Your task to perform on an android device: uninstall "WhatsApp Messenger" Image 0: 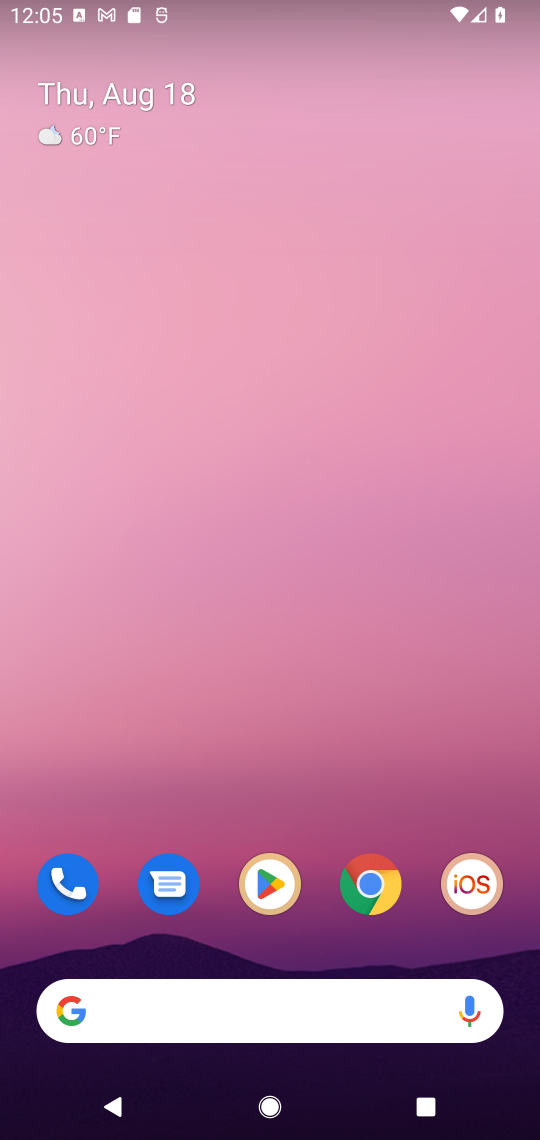
Step 0: drag from (269, 1007) to (278, 164)
Your task to perform on an android device: uninstall "WhatsApp Messenger" Image 1: 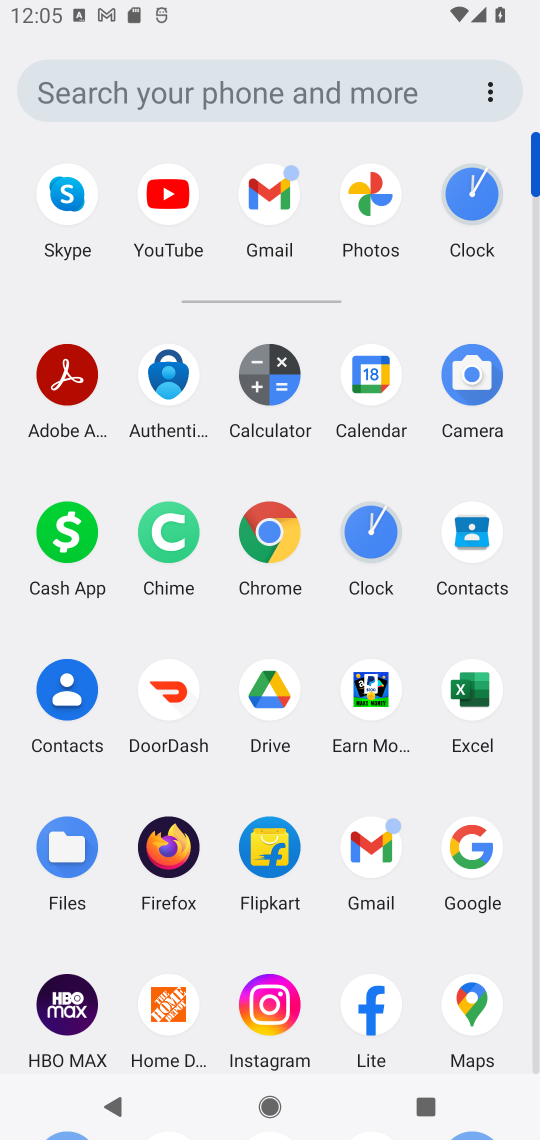
Step 1: drag from (235, 984) to (258, 485)
Your task to perform on an android device: uninstall "WhatsApp Messenger" Image 2: 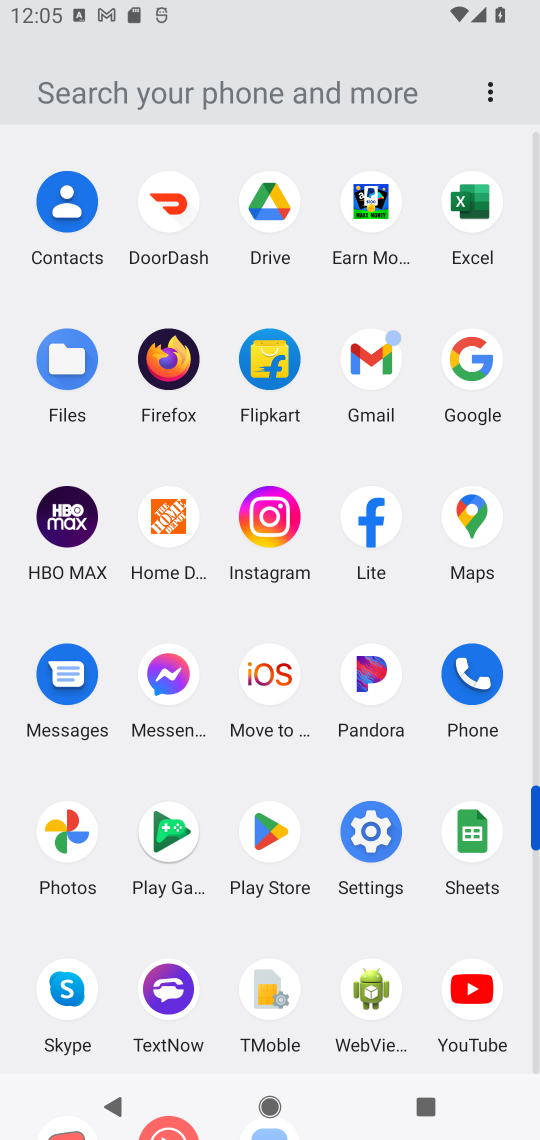
Step 2: click (272, 827)
Your task to perform on an android device: uninstall "WhatsApp Messenger" Image 3: 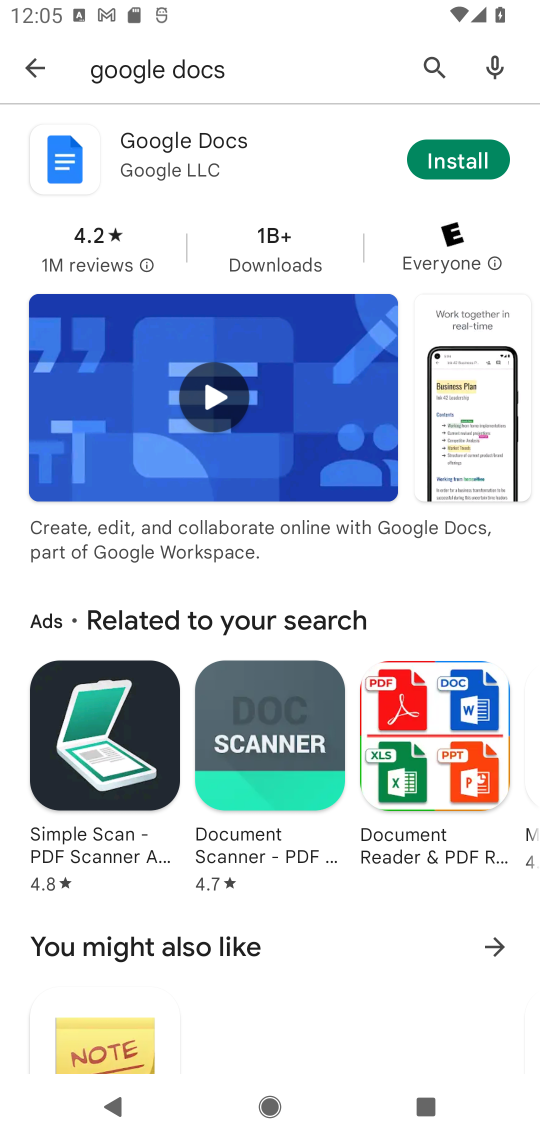
Step 3: press back button
Your task to perform on an android device: uninstall "WhatsApp Messenger" Image 4: 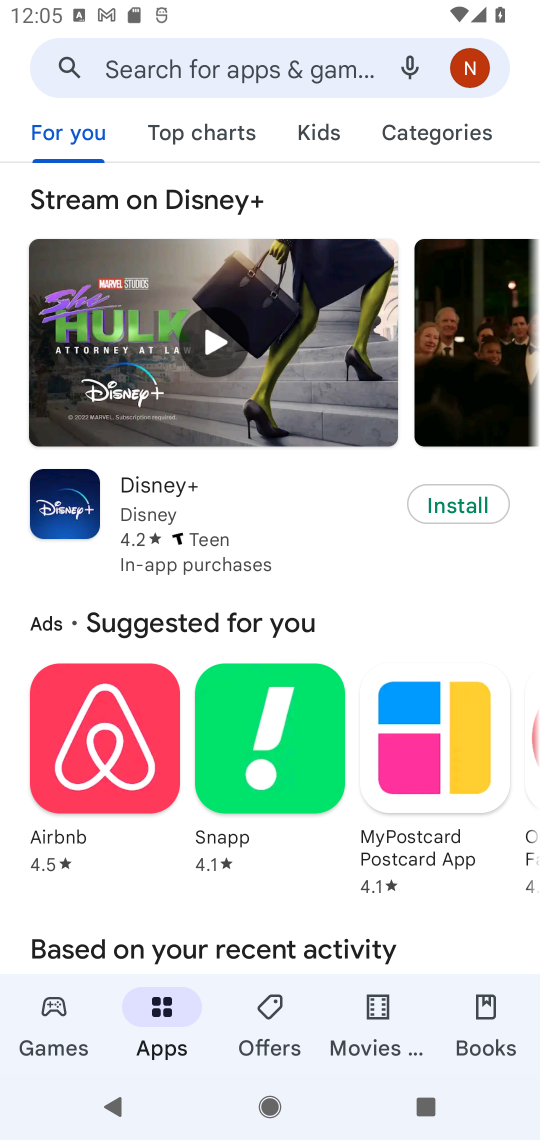
Step 4: click (215, 60)
Your task to perform on an android device: uninstall "WhatsApp Messenger" Image 5: 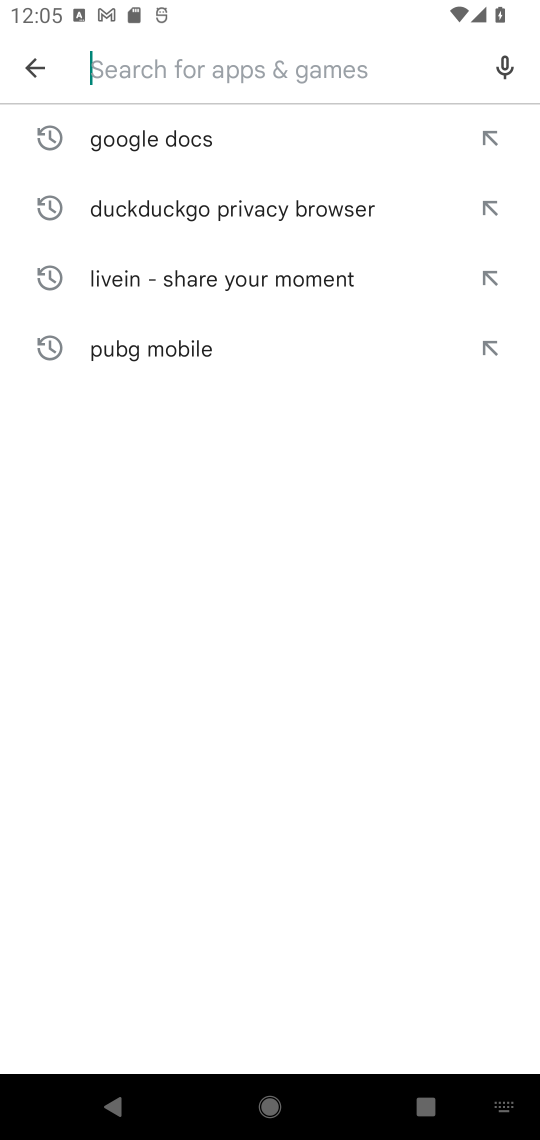
Step 5: type "WhatsApp Messenger"
Your task to perform on an android device: uninstall "WhatsApp Messenger" Image 6: 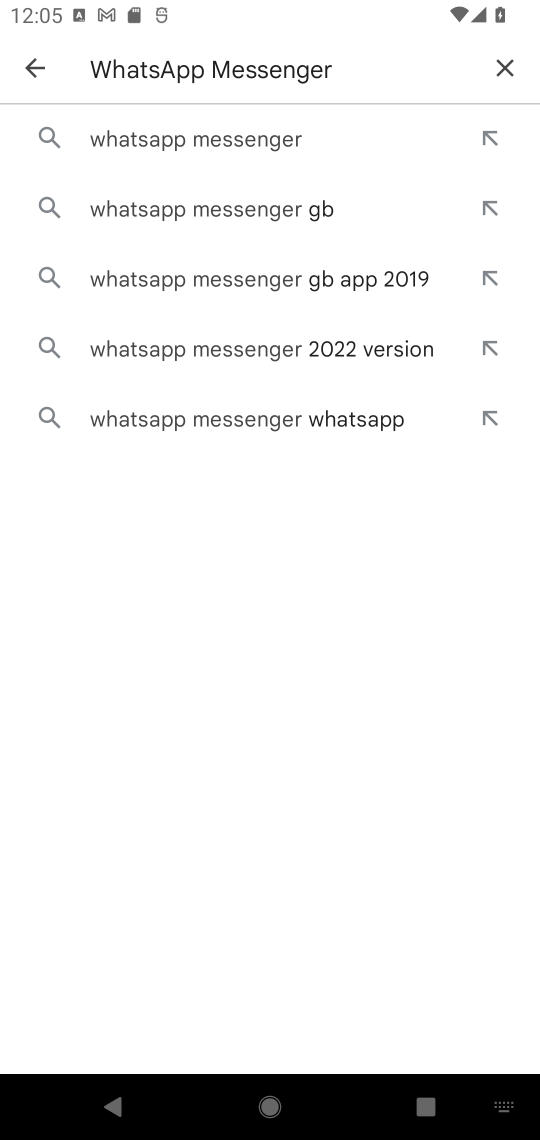
Step 6: click (171, 153)
Your task to perform on an android device: uninstall "WhatsApp Messenger" Image 7: 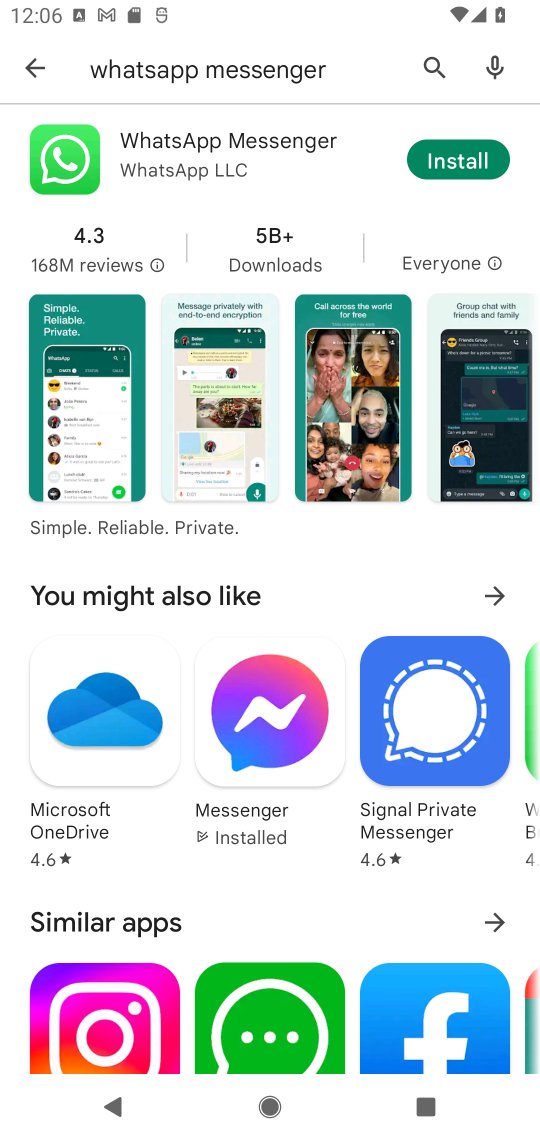
Step 7: task complete